Your task to perform on an android device: Open Maps and search for coffee Image 0: 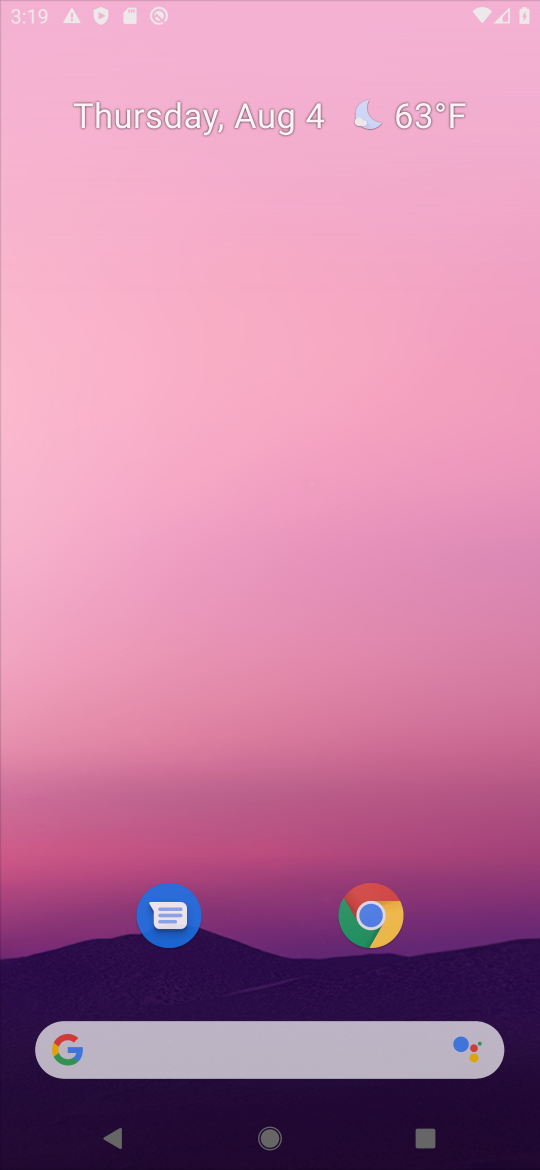
Step 0: press home button
Your task to perform on an android device: Open Maps and search for coffee Image 1: 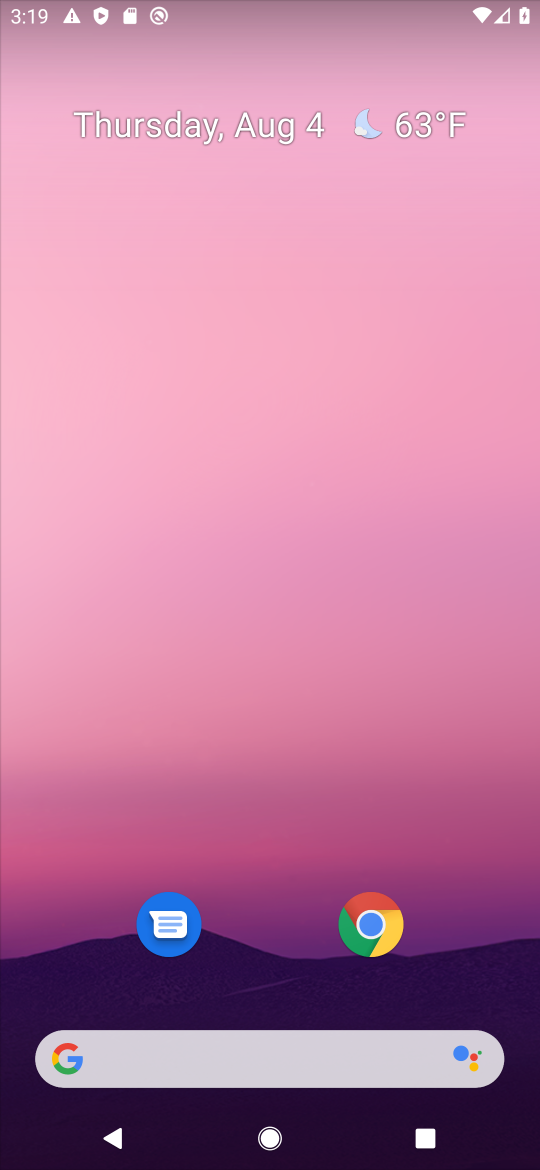
Step 1: drag from (267, 941) to (165, 127)
Your task to perform on an android device: Open Maps and search for coffee Image 2: 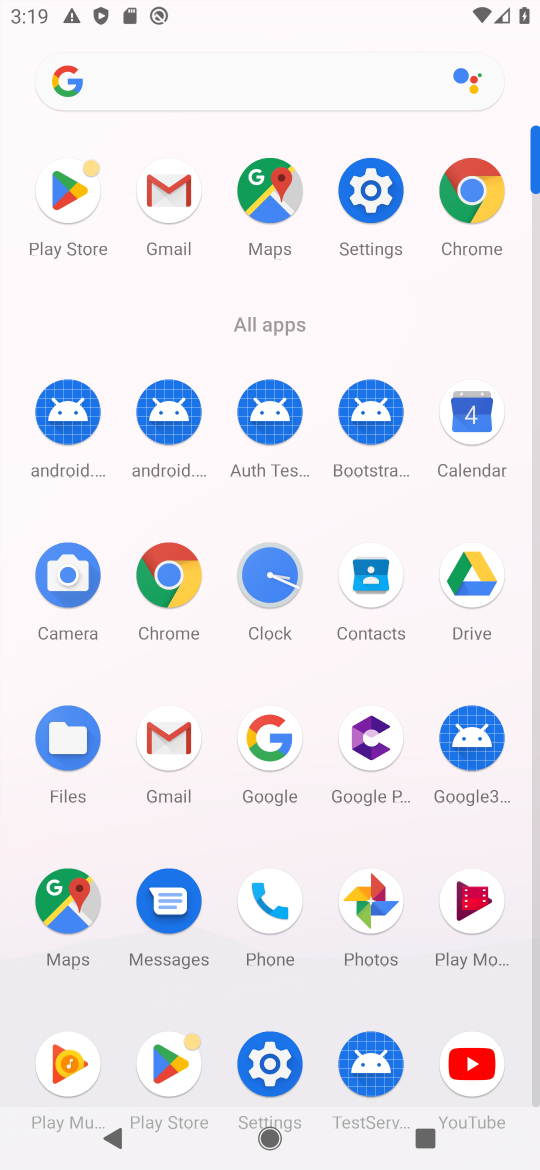
Step 2: click (276, 192)
Your task to perform on an android device: Open Maps and search for coffee Image 3: 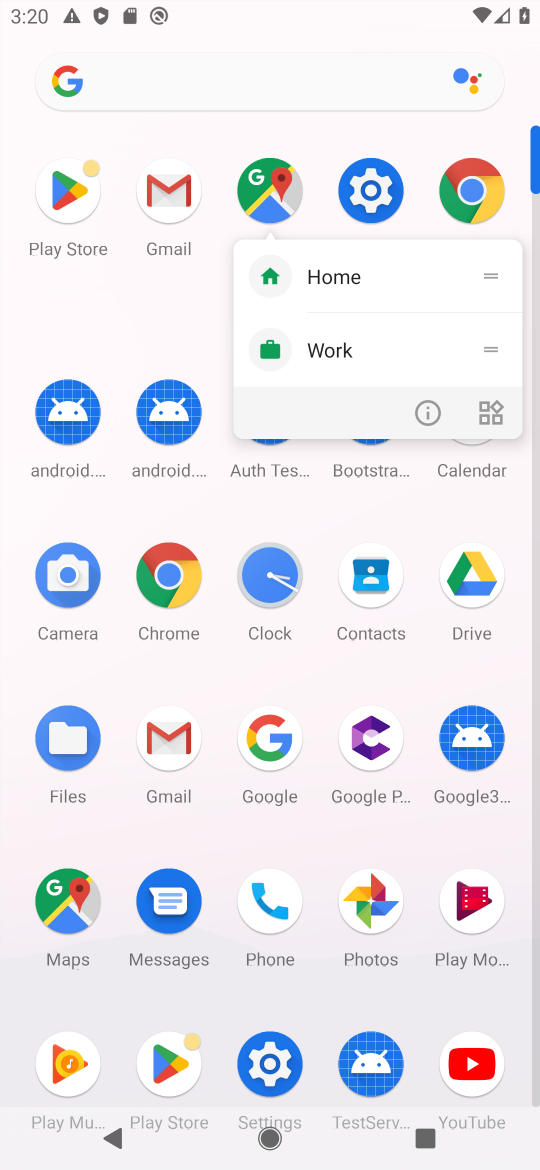
Step 3: click (256, 184)
Your task to perform on an android device: Open Maps and search for coffee Image 4: 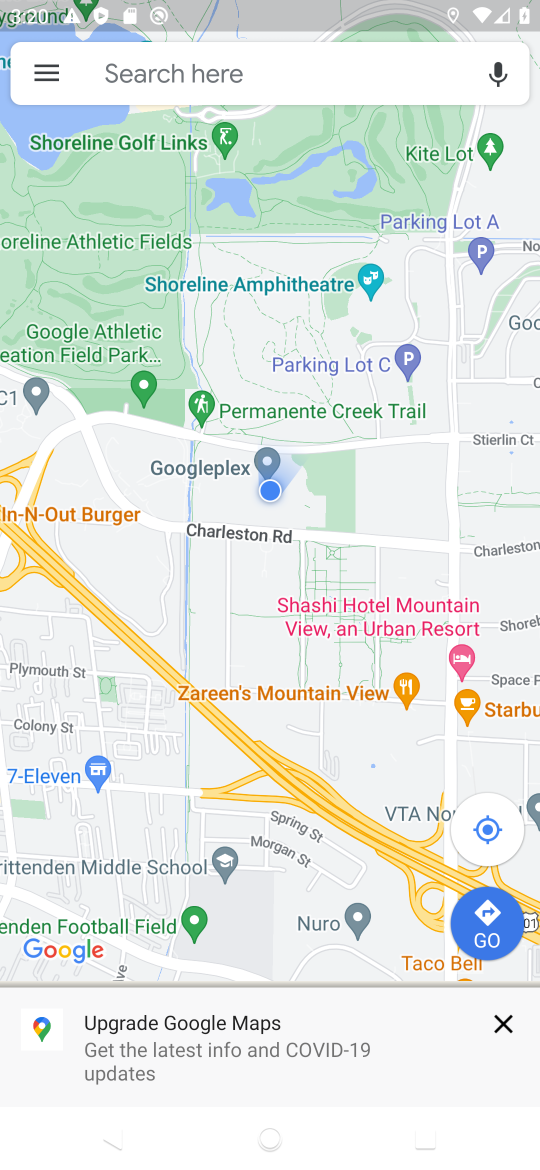
Step 4: click (192, 63)
Your task to perform on an android device: Open Maps and search for coffee Image 5: 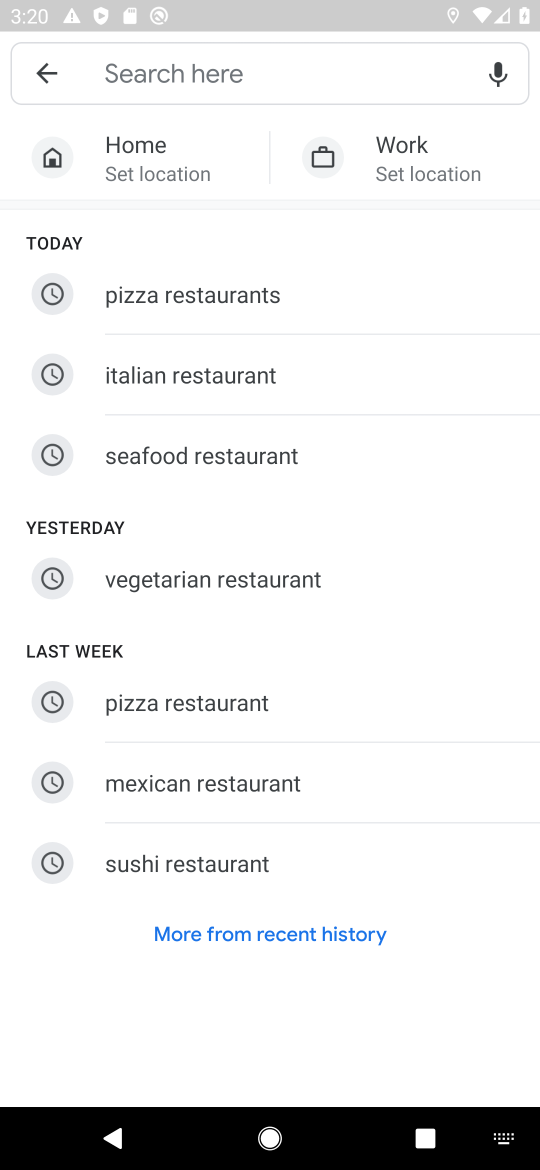
Step 5: type "coffee"
Your task to perform on an android device: Open Maps and search for coffee Image 6: 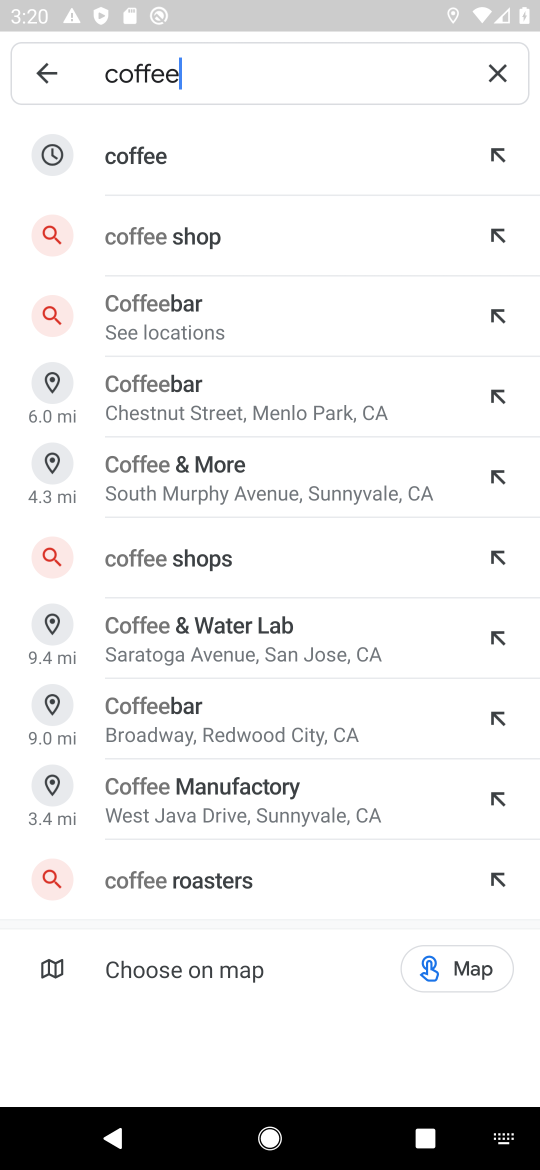
Step 6: click (143, 149)
Your task to perform on an android device: Open Maps and search for coffee Image 7: 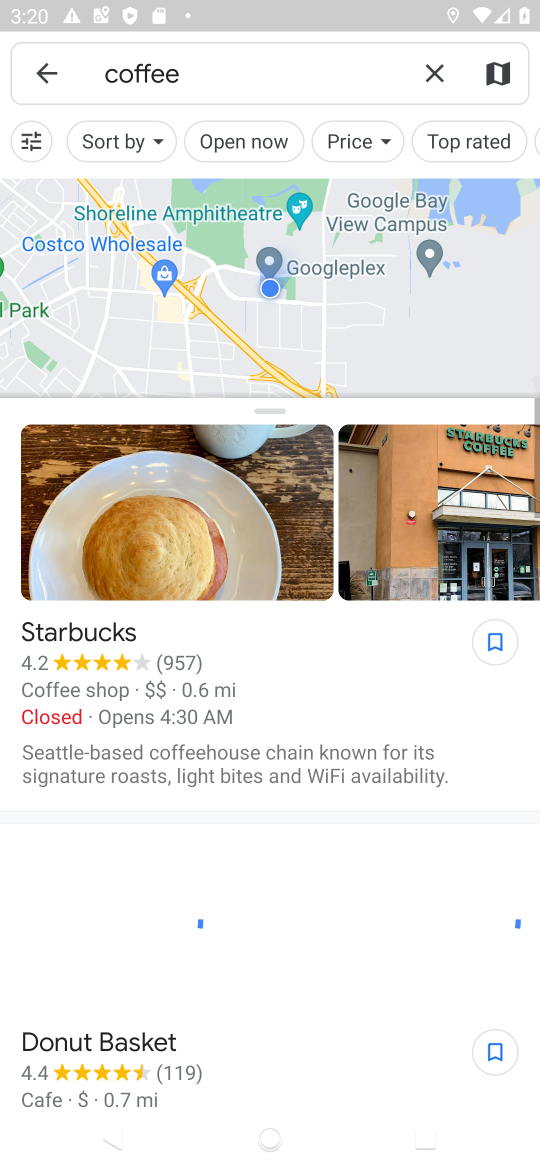
Step 7: task complete